Your task to perform on an android device: Go to ESPN.com Image 0: 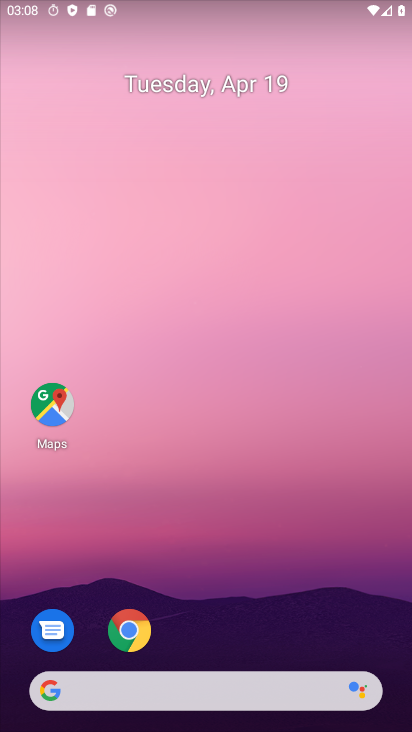
Step 0: click (263, 686)
Your task to perform on an android device: Go to ESPN.com Image 1: 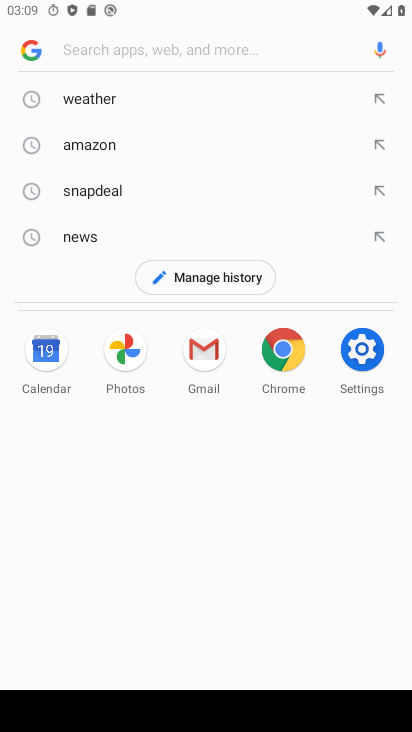
Step 1: type "ESPN.com"
Your task to perform on an android device: Go to ESPN.com Image 2: 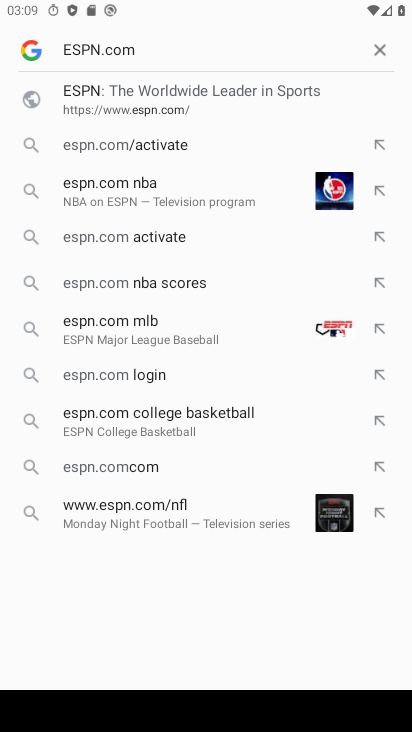
Step 2: click (138, 90)
Your task to perform on an android device: Go to ESPN.com Image 3: 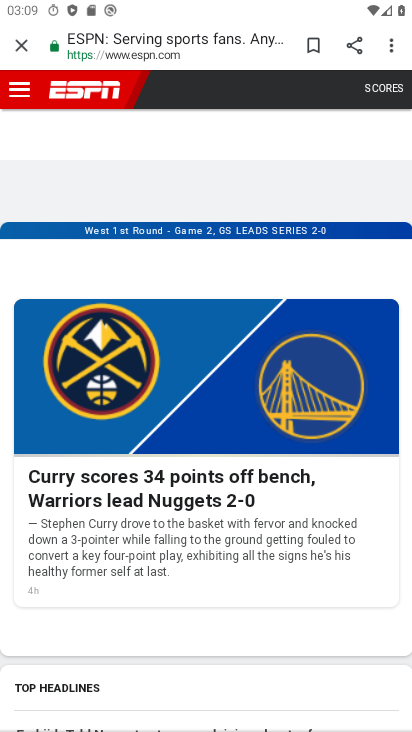
Step 3: task complete